Your task to perform on an android device: What's the weather? Image 0: 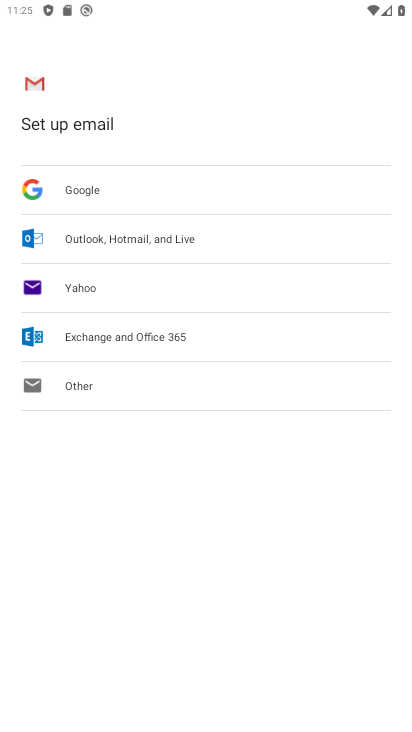
Step 0: press home button
Your task to perform on an android device: What's the weather? Image 1: 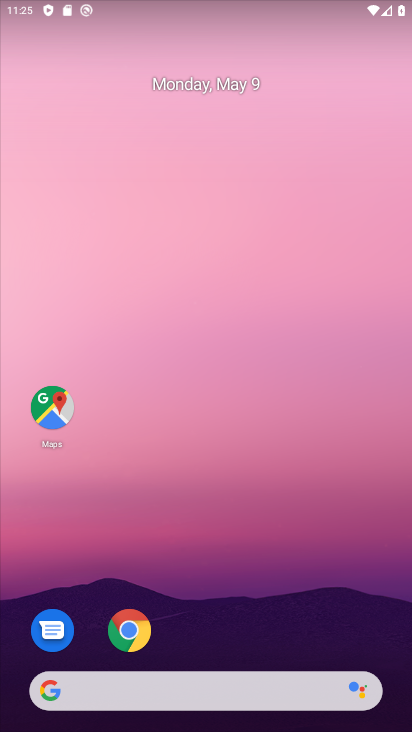
Step 1: click (54, 693)
Your task to perform on an android device: What's the weather? Image 2: 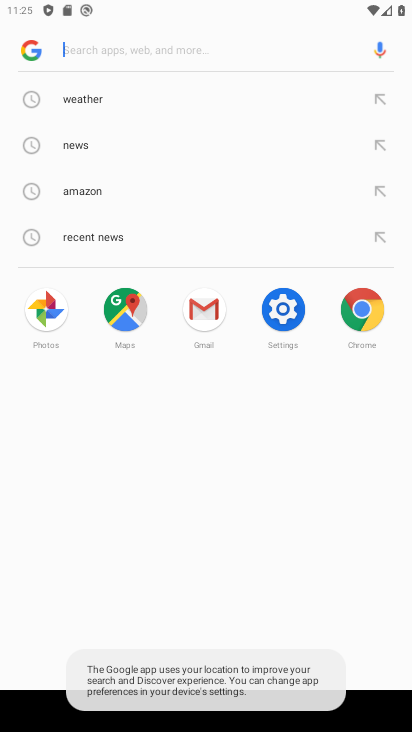
Step 2: click (90, 99)
Your task to perform on an android device: What's the weather? Image 3: 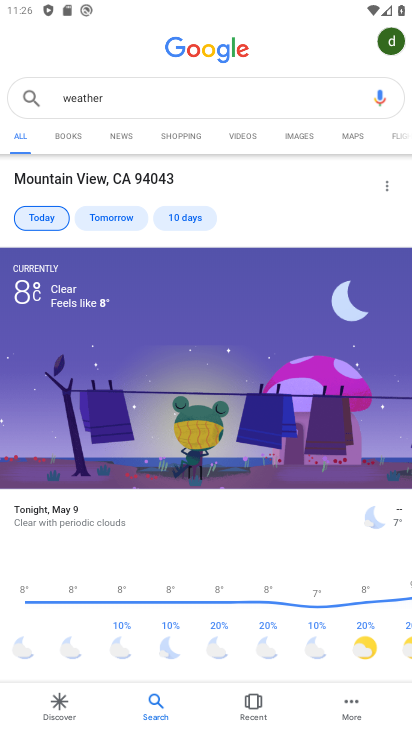
Step 3: task complete